Your task to perform on an android device: turn off javascript in the chrome app Image 0: 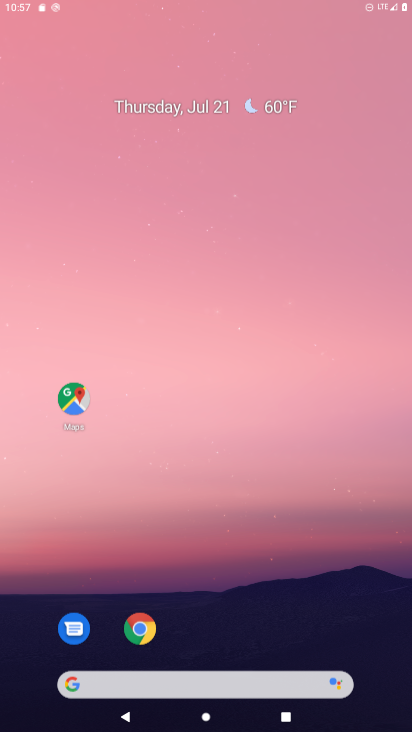
Step 0: press home button
Your task to perform on an android device: turn off javascript in the chrome app Image 1: 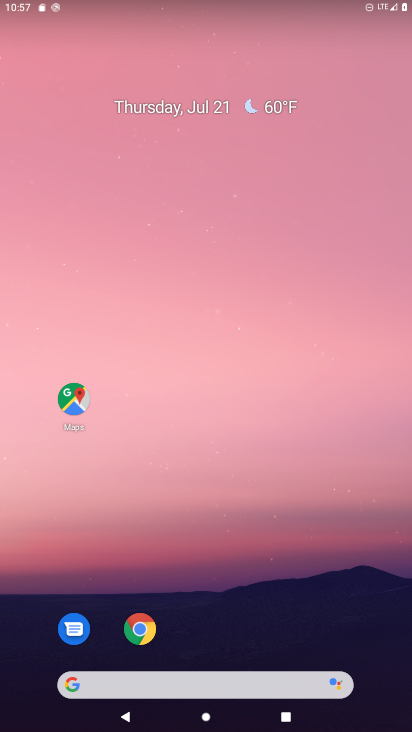
Step 1: click (140, 628)
Your task to perform on an android device: turn off javascript in the chrome app Image 2: 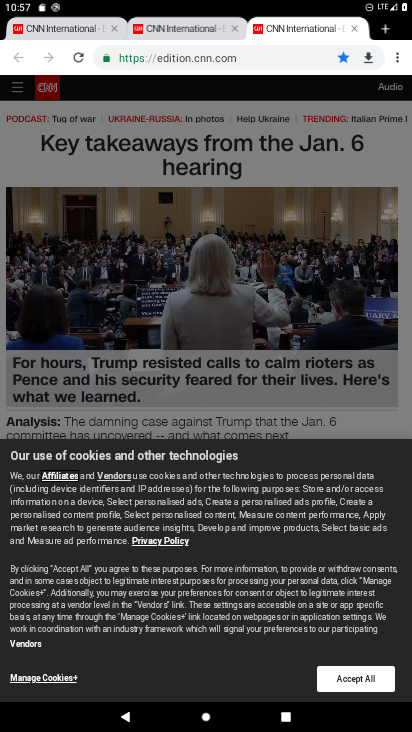
Step 2: drag from (399, 55) to (286, 384)
Your task to perform on an android device: turn off javascript in the chrome app Image 3: 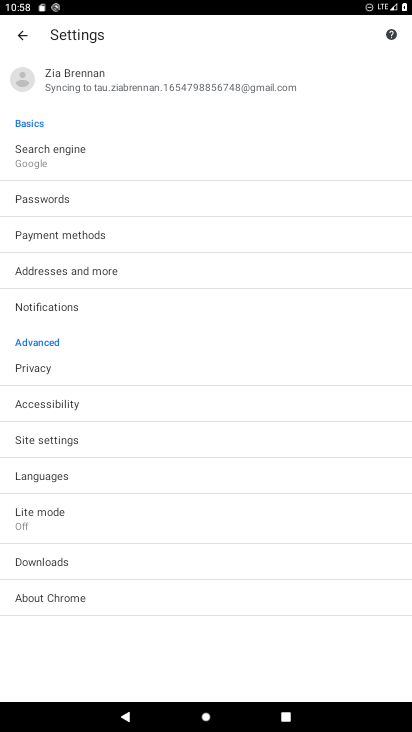
Step 3: click (39, 434)
Your task to perform on an android device: turn off javascript in the chrome app Image 4: 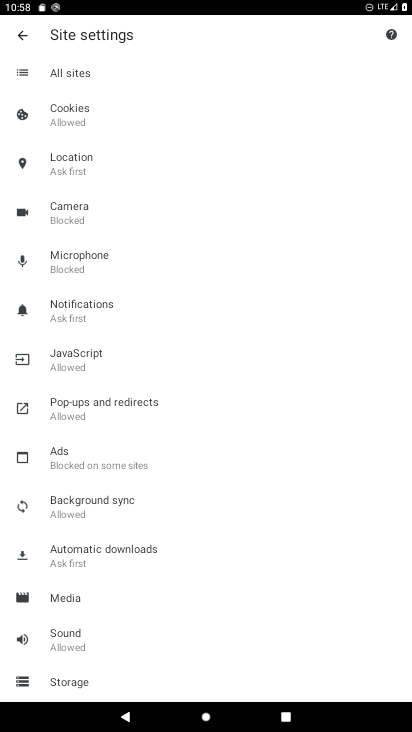
Step 4: click (93, 359)
Your task to perform on an android device: turn off javascript in the chrome app Image 5: 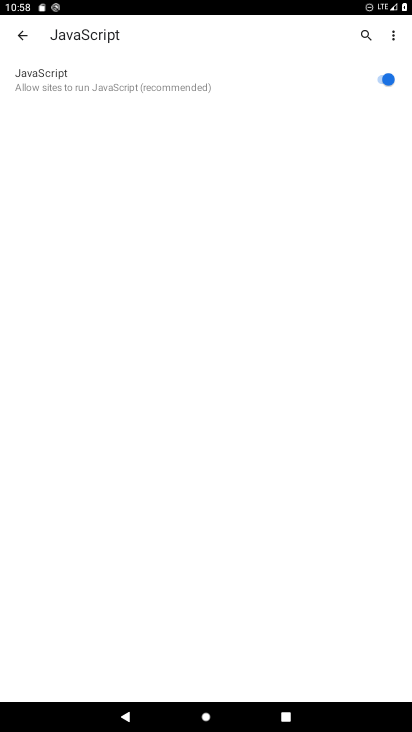
Step 5: click (381, 79)
Your task to perform on an android device: turn off javascript in the chrome app Image 6: 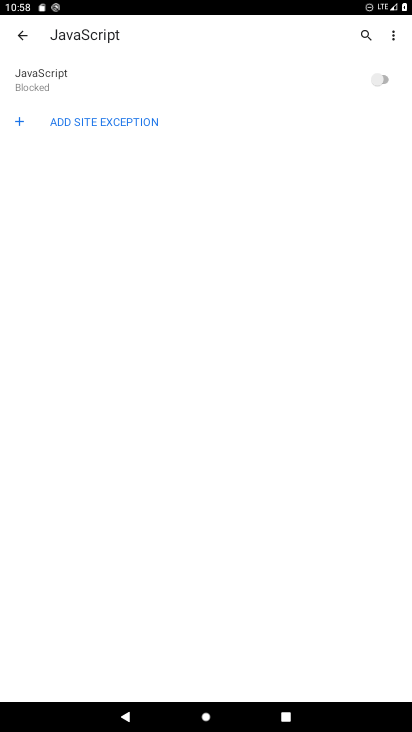
Step 6: task complete